Your task to perform on an android device: turn off picture-in-picture Image 0: 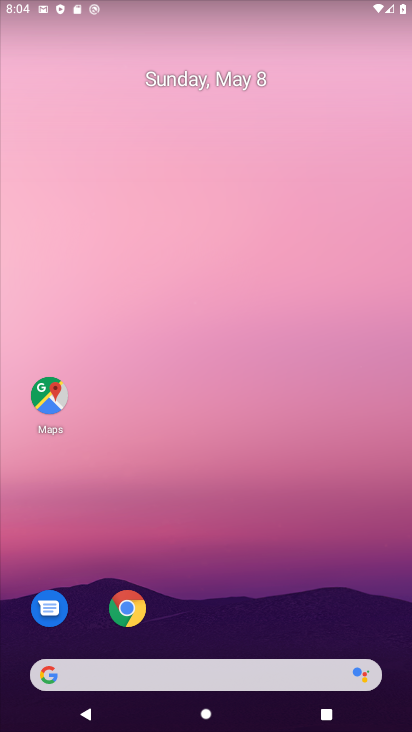
Step 0: drag from (130, 611) to (201, 543)
Your task to perform on an android device: turn off picture-in-picture Image 1: 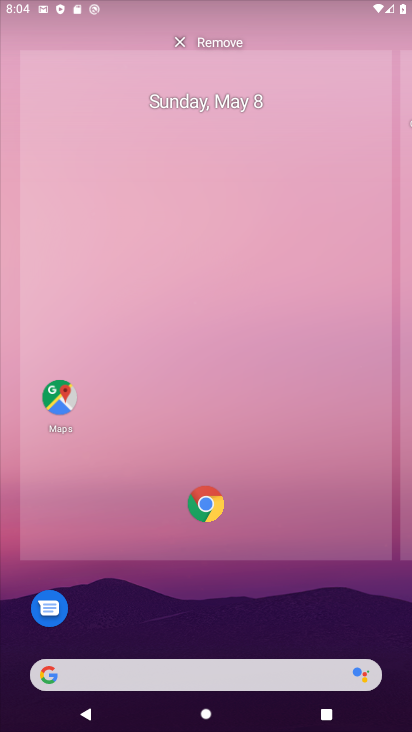
Step 1: click (222, 518)
Your task to perform on an android device: turn off picture-in-picture Image 2: 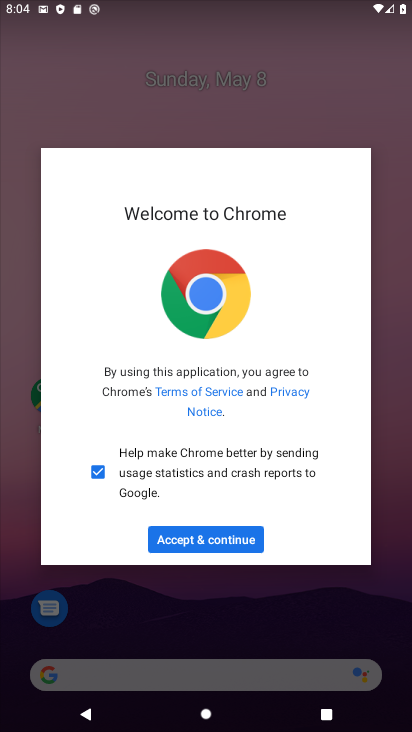
Step 2: click (174, 596)
Your task to perform on an android device: turn off picture-in-picture Image 3: 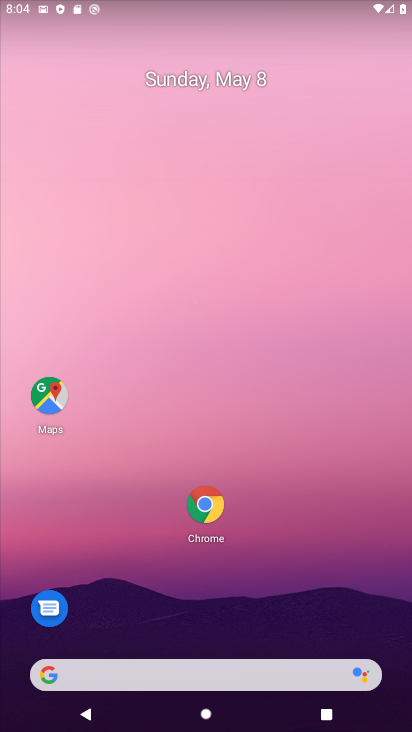
Step 3: drag from (208, 508) to (298, 417)
Your task to perform on an android device: turn off picture-in-picture Image 4: 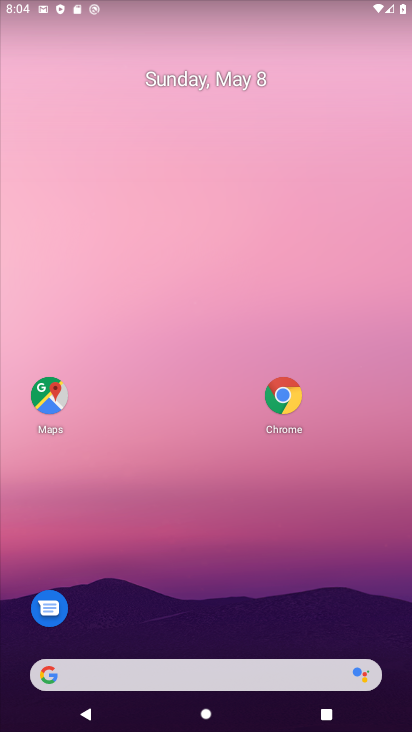
Step 4: click (285, 392)
Your task to perform on an android device: turn off picture-in-picture Image 5: 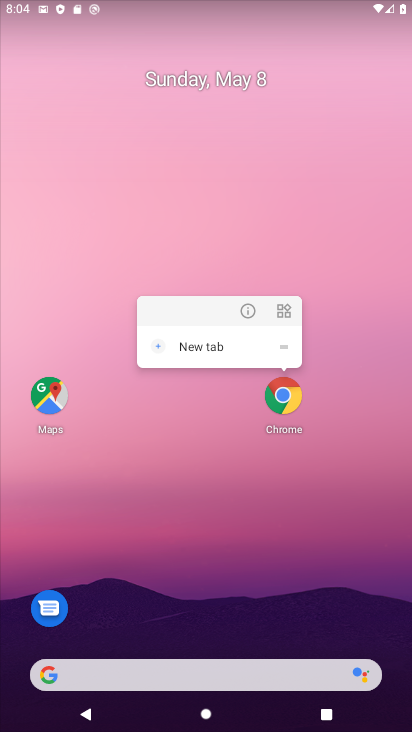
Step 5: click (248, 314)
Your task to perform on an android device: turn off picture-in-picture Image 6: 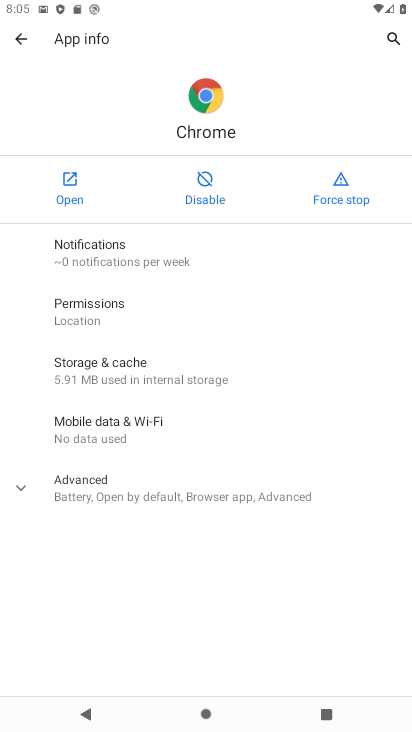
Step 6: click (89, 482)
Your task to perform on an android device: turn off picture-in-picture Image 7: 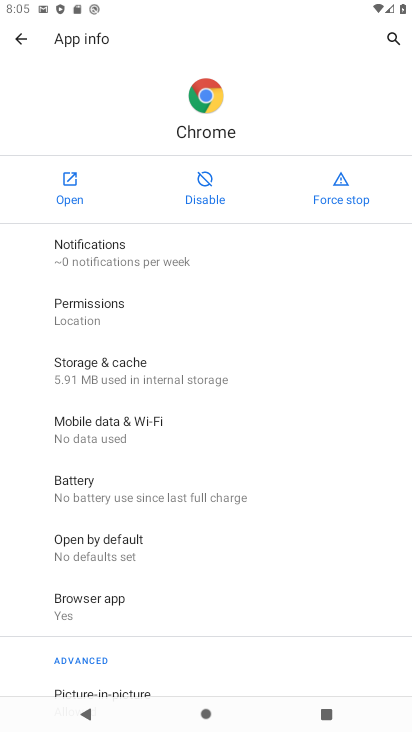
Step 7: drag from (136, 643) to (237, 446)
Your task to perform on an android device: turn off picture-in-picture Image 8: 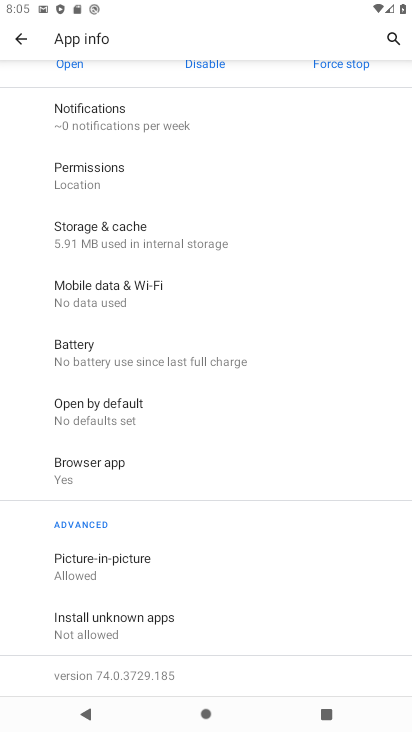
Step 8: click (98, 561)
Your task to perform on an android device: turn off picture-in-picture Image 9: 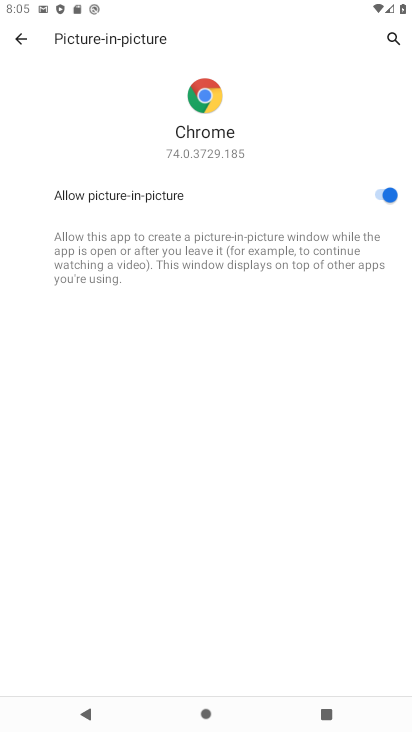
Step 9: click (379, 192)
Your task to perform on an android device: turn off picture-in-picture Image 10: 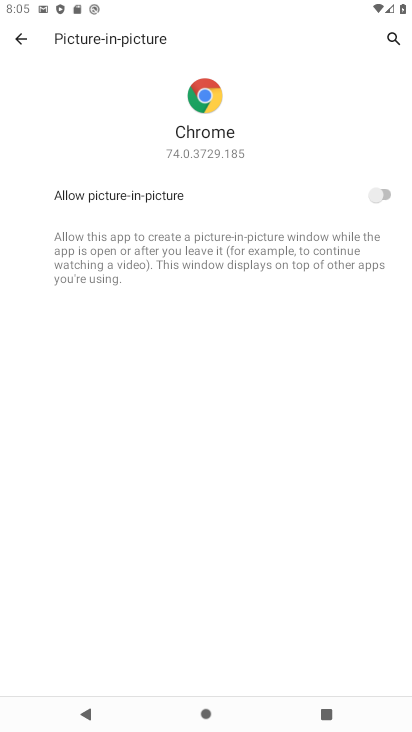
Step 10: task complete